Your task to perform on an android device: show emergency info Image 0: 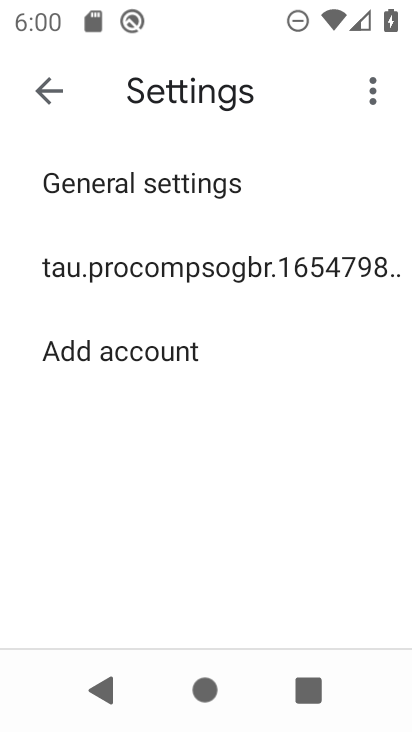
Step 0: press home button
Your task to perform on an android device: show emergency info Image 1: 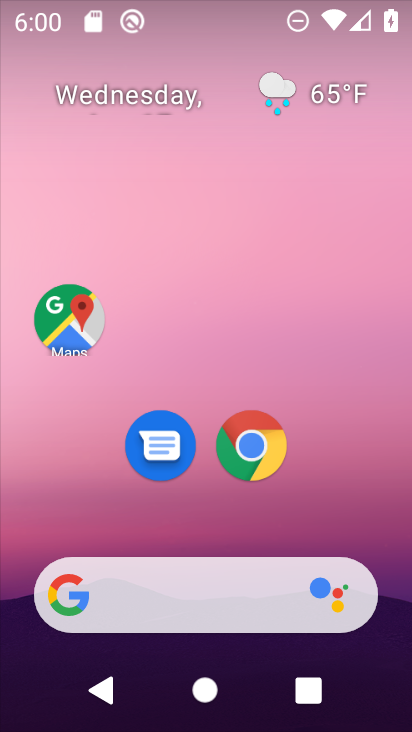
Step 1: drag from (205, 517) to (205, 120)
Your task to perform on an android device: show emergency info Image 2: 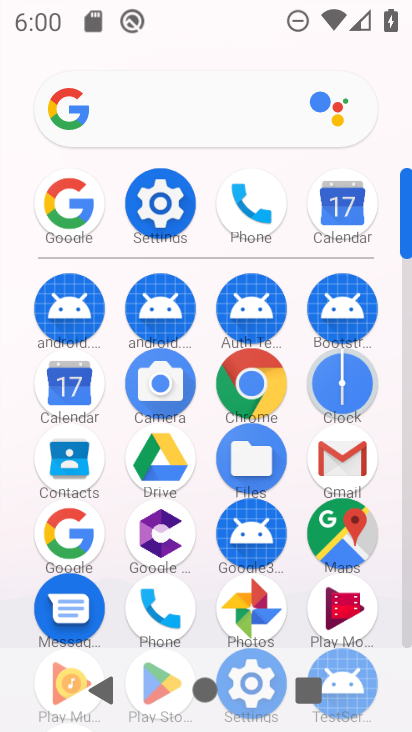
Step 2: click (163, 211)
Your task to perform on an android device: show emergency info Image 3: 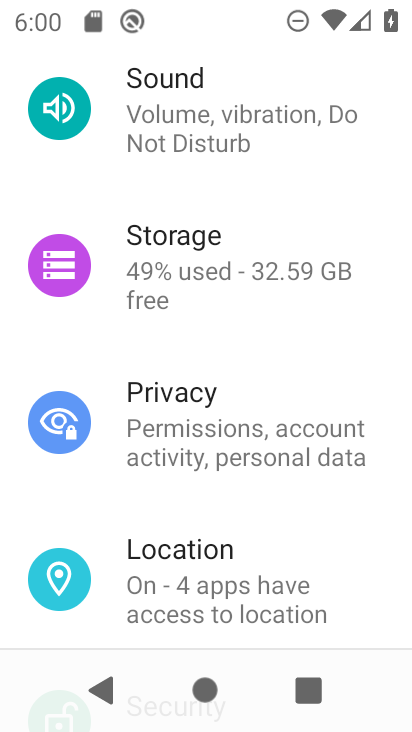
Step 3: drag from (212, 574) to (221, 212)
Your task to perform on an android device: show emergency info Image 4: 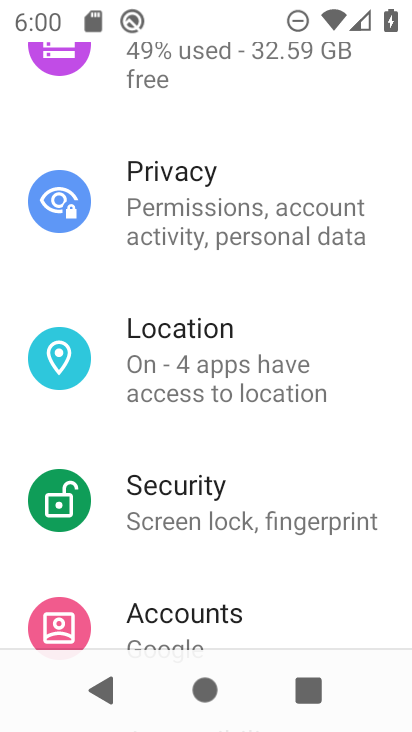
Step 4: drag from (221, 518) to (228, 184)
Your task to perform on an android device: show emergency info Image 5: 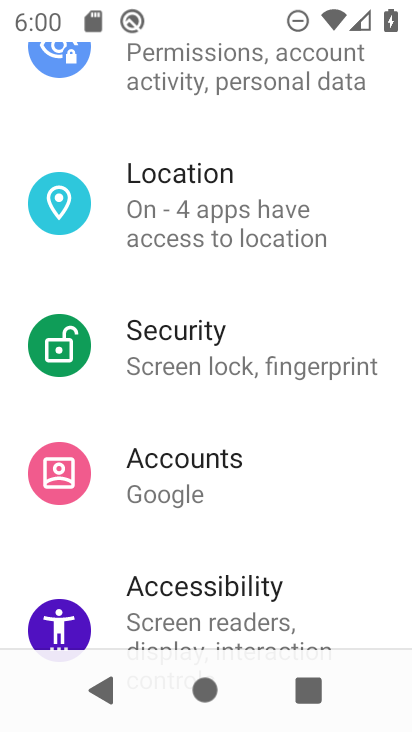
Step 5: drag from (228, 579) to (233, 222)
Your task to perform on an android device: show emergency info Image 6: 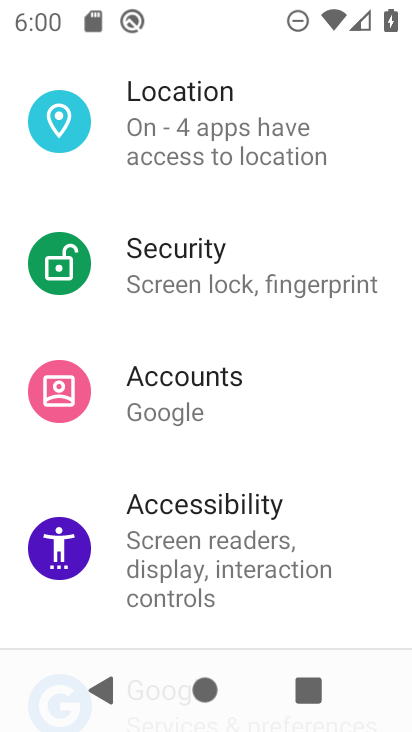
Step 6: drag from (230, 573) to (253, 170)
Your task to perform on an android device: show emergency info Image 7: 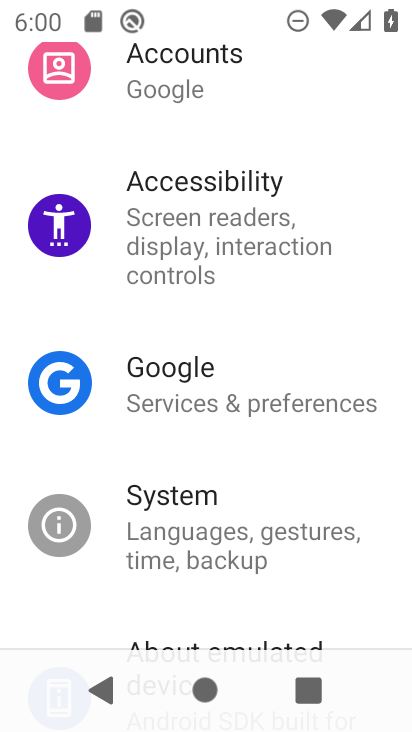
Step 7: drag from (252, 568) to (250, 139)
Your task to perform on an android device: show emergency info Image 8: 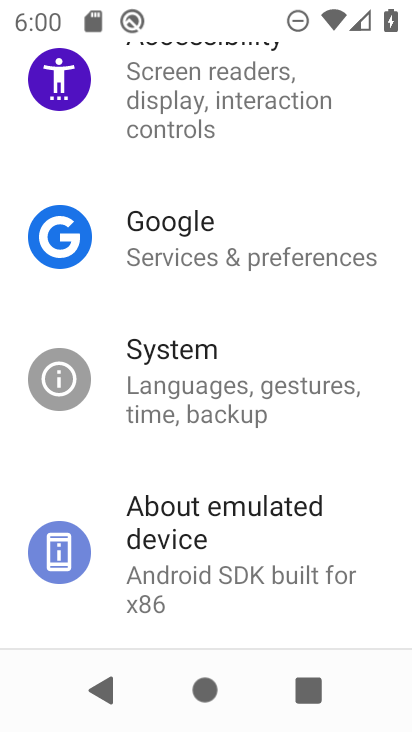
Step 8: click (189, 508)
Your task to perform on an android device: show emergency info Image 9: 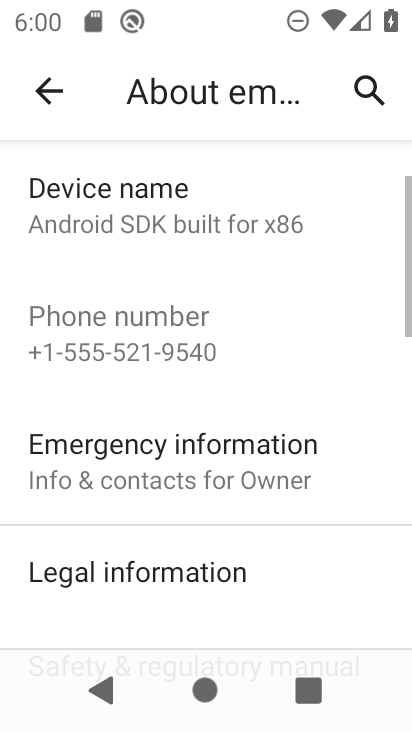
Step 9: click (177, 462)
Your task to perform on an android device: show emergency info Image 10: 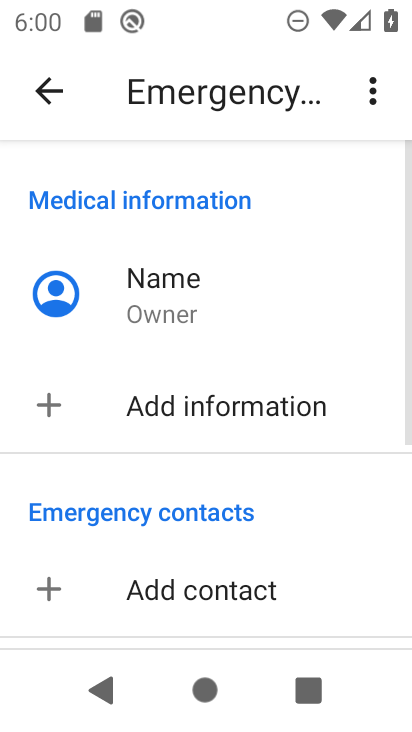
Step 10: task complete